Your task to perform on an android device: turn off javascript in the chrome app Image 0: 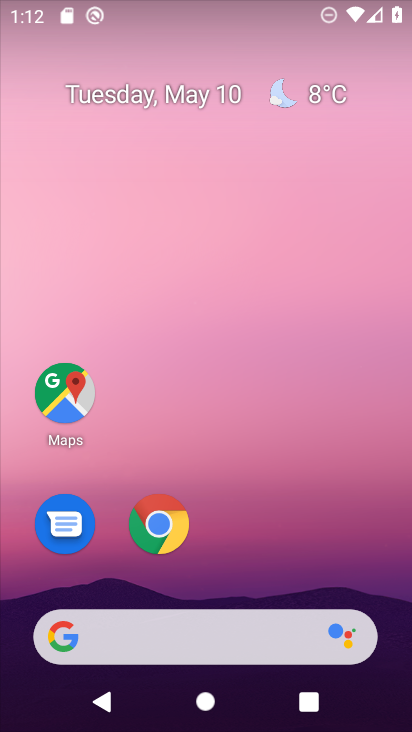
Step 0: click (165, 520)
Your task to perform on an android device: turn off javascript in the chrome app Image 1: 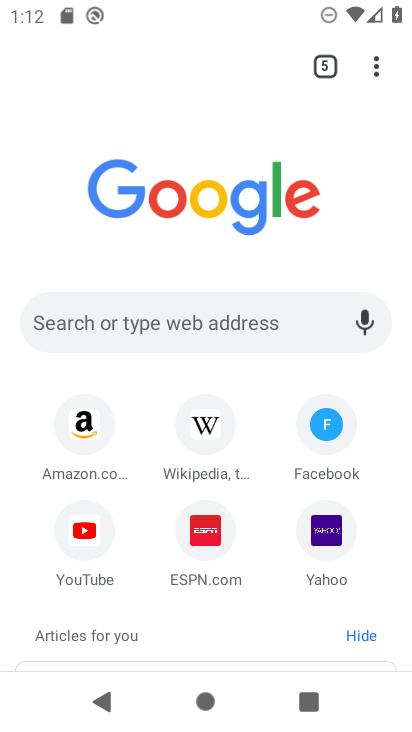
Step 1: click (373, 71)
Your task to perform on an android device: turn off javascript in the chrome app Image 2: 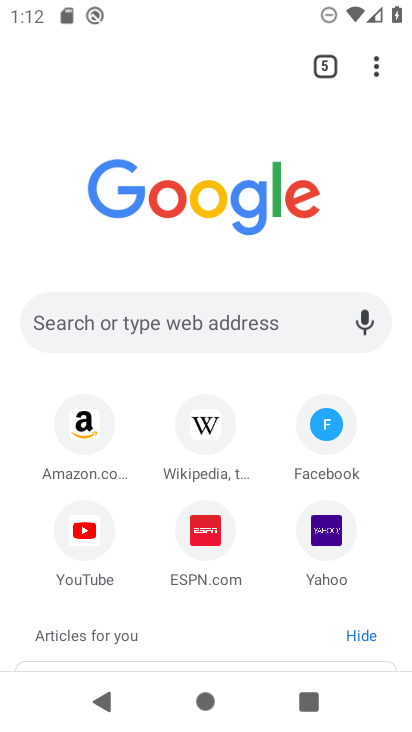
Step 2: click (373, 73)
Your task to perform on an android device: turn off javascript in the chrome app Image 3: 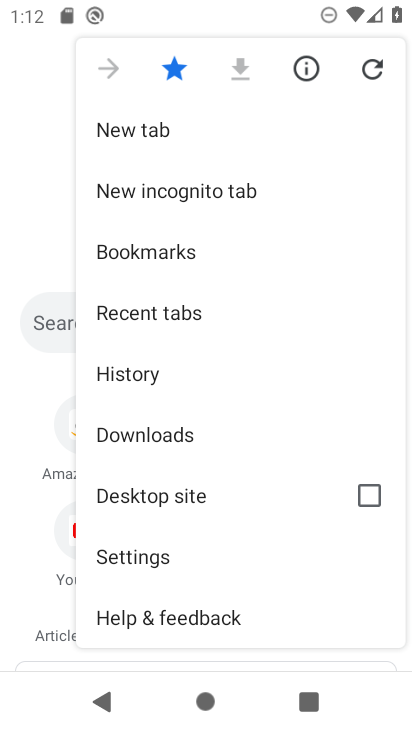
Step 3: click (199, 556)
Your task to perform on an android device: turn off javascript in the chrome app Image 4: 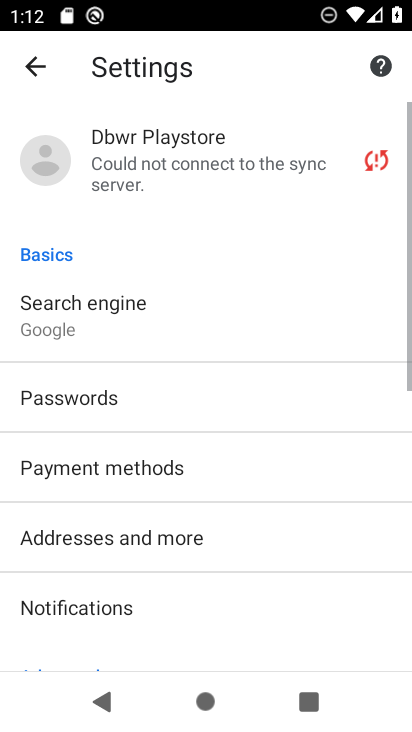
Step 4: drag from (209, 528) to (241, 181)
Your task to perform on an android device: turn off javascript in the chrome app Image 5: 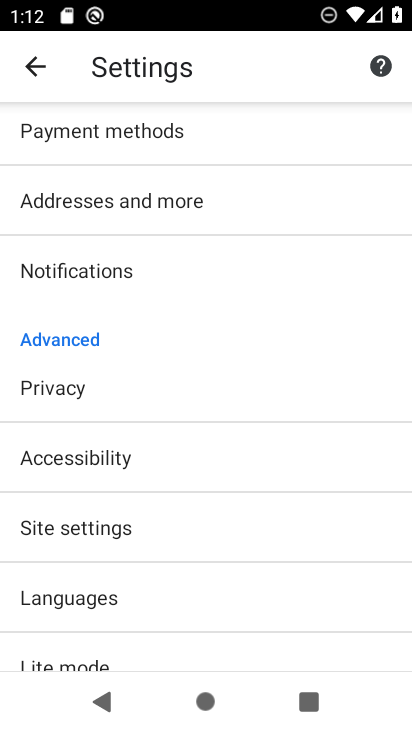
Step 5: click (157, 521)
Your task to perform on an android device: turn off javascript in the chrome app Image 6: 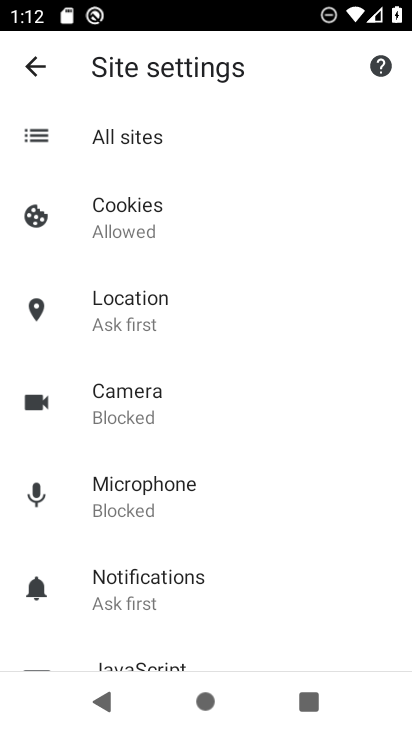
Step 6: drag from (259, 537) to (271, 425)
Your task to perform on an android device: turn off javascript in the chrome app Image 7: 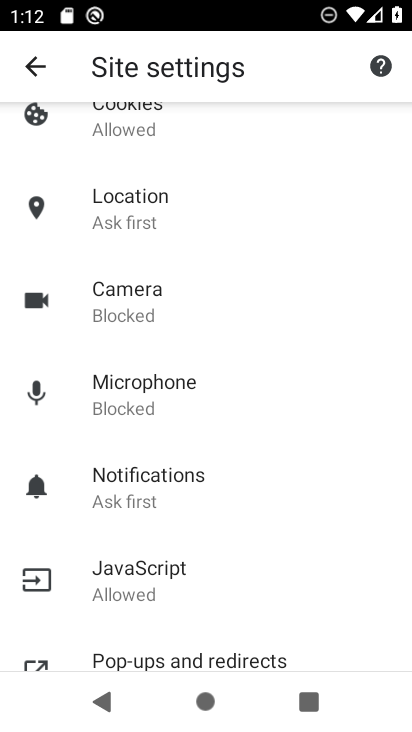
Step 7: click (215, 584)
Your task to perform on an android device: turn off javascript in the chrome app Image 8: 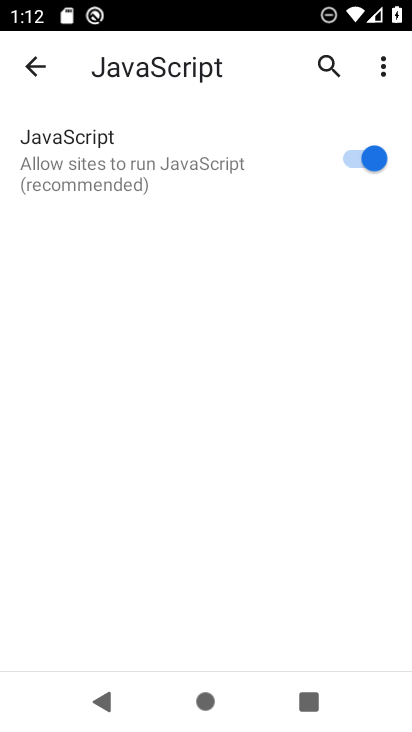
Step 8: click (351, 155)
Your task to perform on an android device: turn off javascript in the chrome app Image 9: 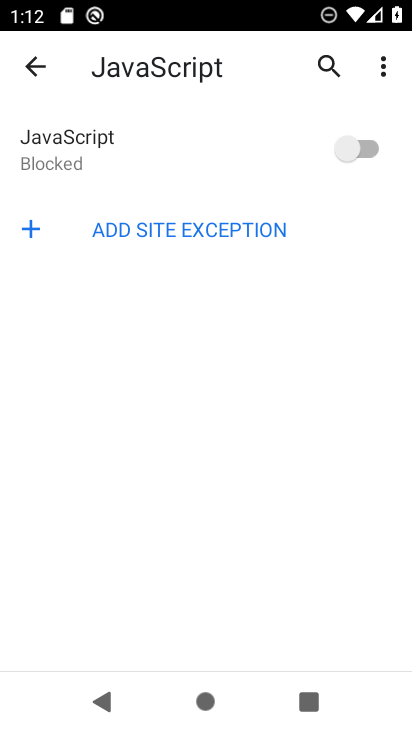
Step 9: task complete